Your task to perform on an android device: Empty the shopping cart on ebay. Add "razer blade" to the cart on ebay, then select checkout. Image 0: 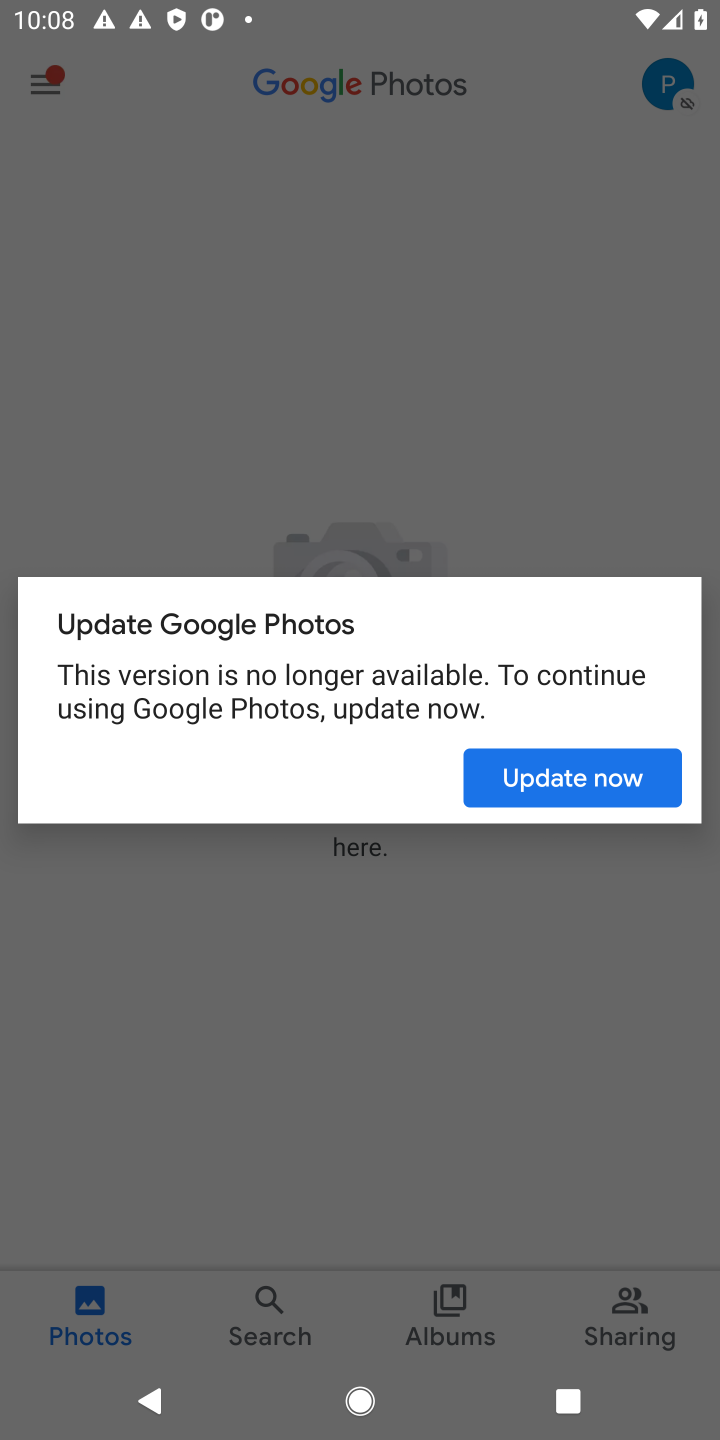
Step 0: press home button
Your task to perform on an android device: Empty the shopping cart on ebay. Add "razer blade" to the cart on ebay, then select checkout. Image 1: 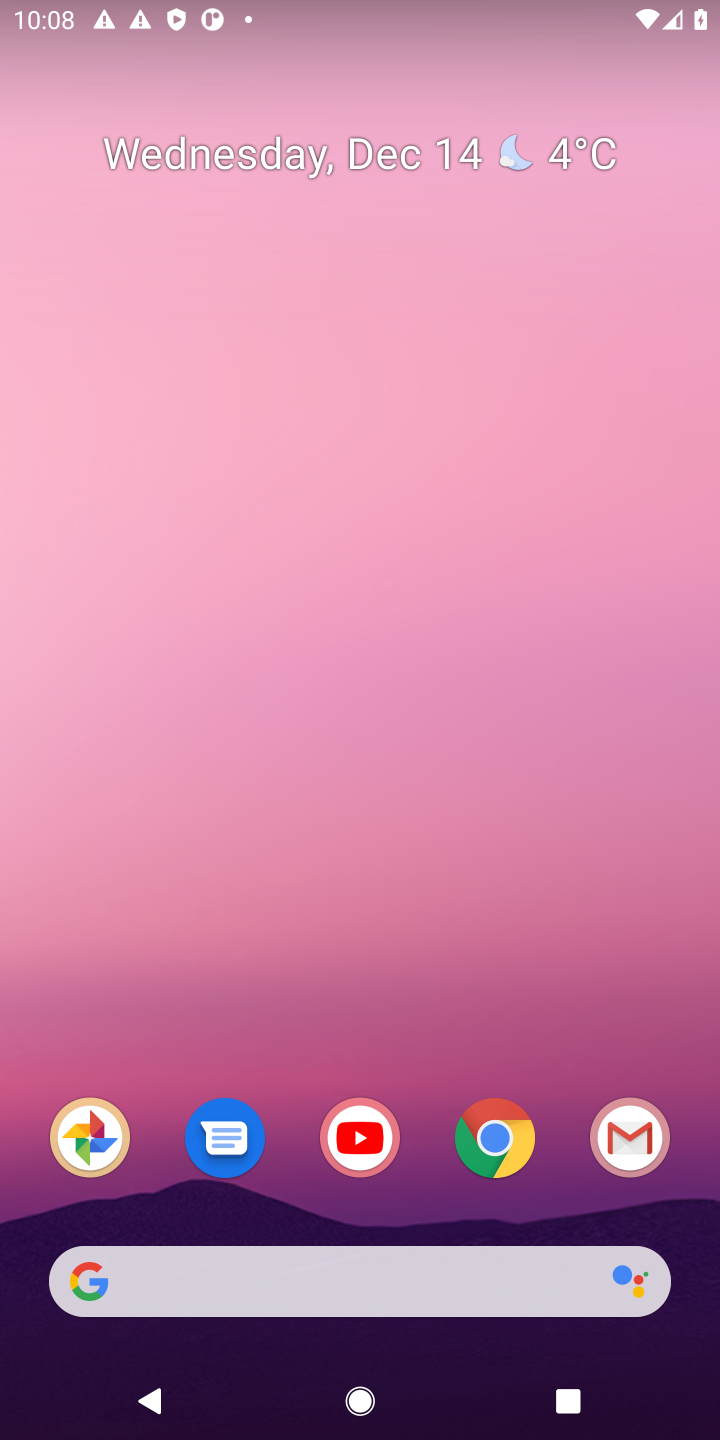
Step 1: click (504, 1135)
Your task to perform on an android device: Empty the shopping cart on ebay. Add "razer blade" to the cart on ebay, then select checkout. Image 2: 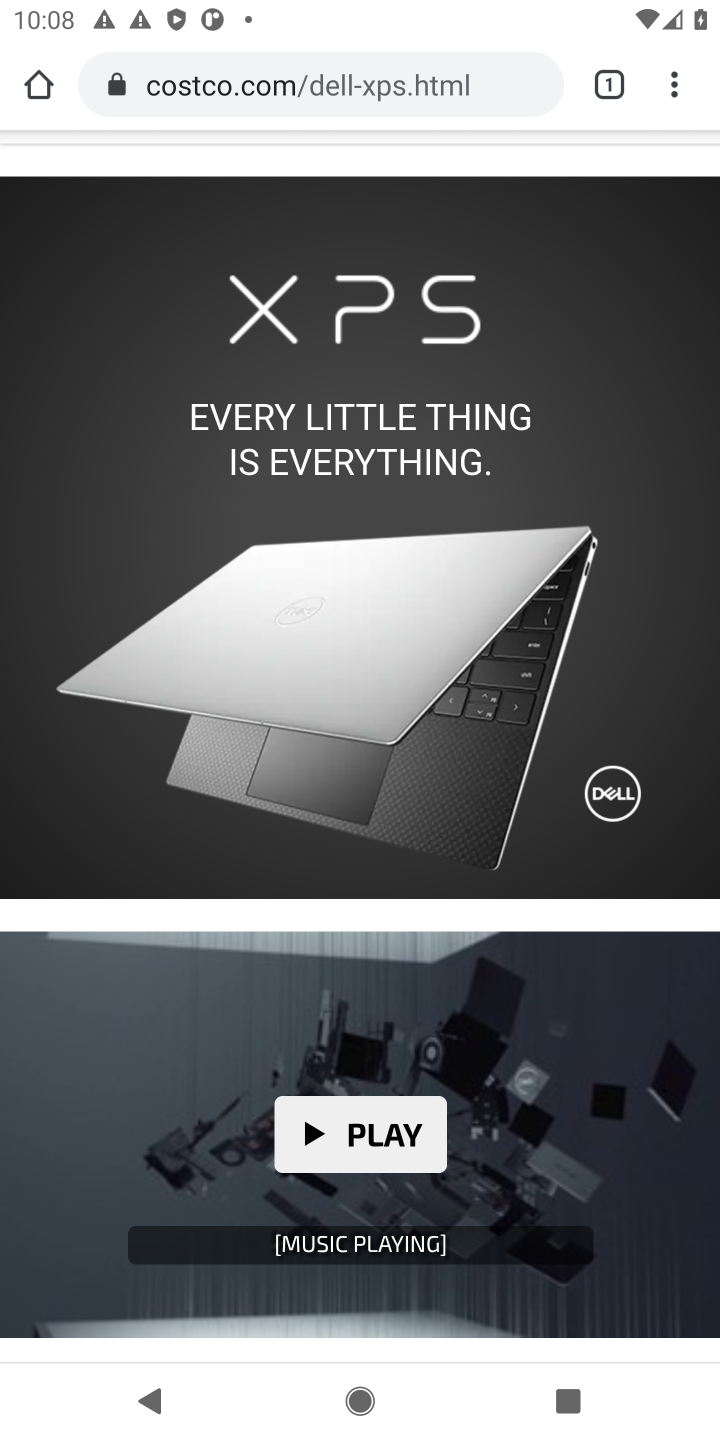
Step 2: click (299, 96)
Your task to perform on an android device: Empty the shopping cart on ebay. Add "razer blade" to the cart on ebay, then select checkout. Image 3: 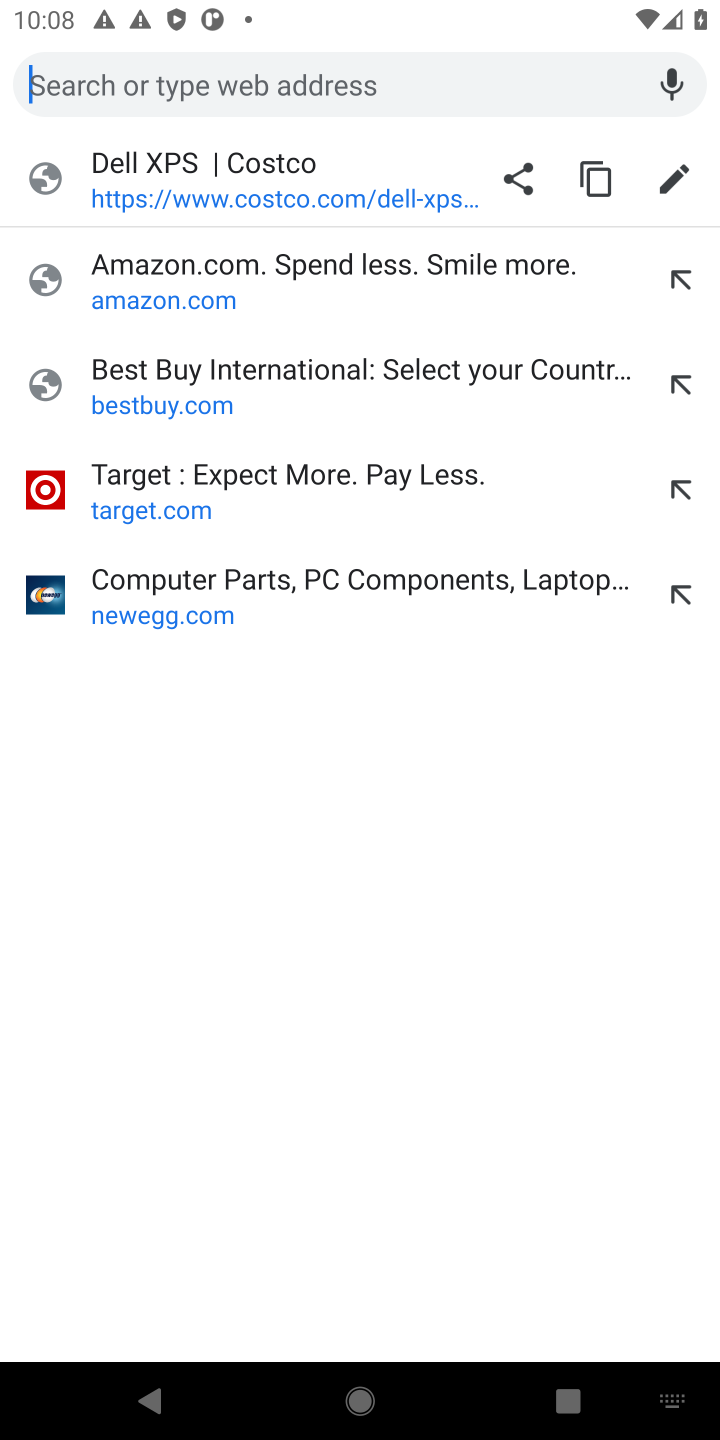
Step 3: type "ebay.com"
Your task to perform on an android device: Empty the shopping cart on ebay. Add "razer blade" to the cart on ebay, then select checkout. Image 4: 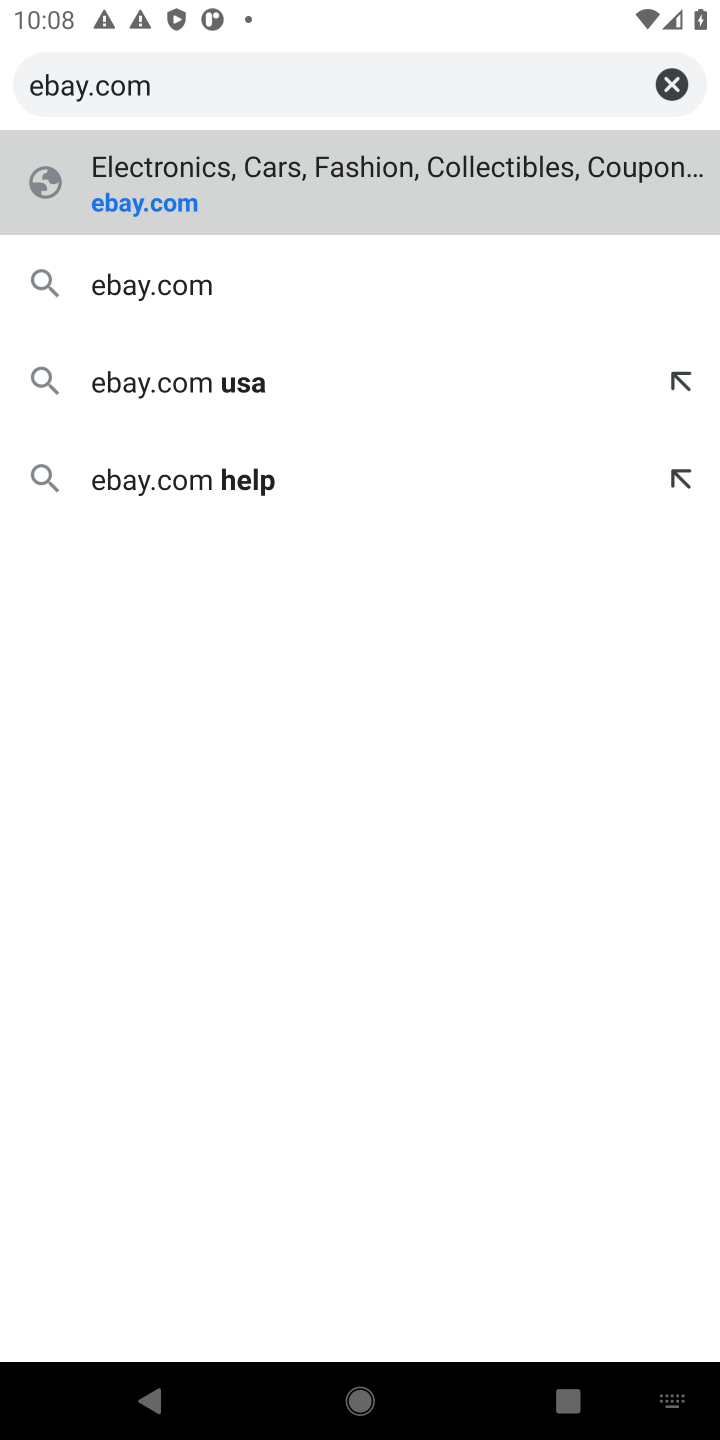
Step 4: click (127, 187)
Your task to perform on an android device: Empty the shopping cart on ebay. Add "razer blade" to the cart on ebay, then select checkout. Image 5: 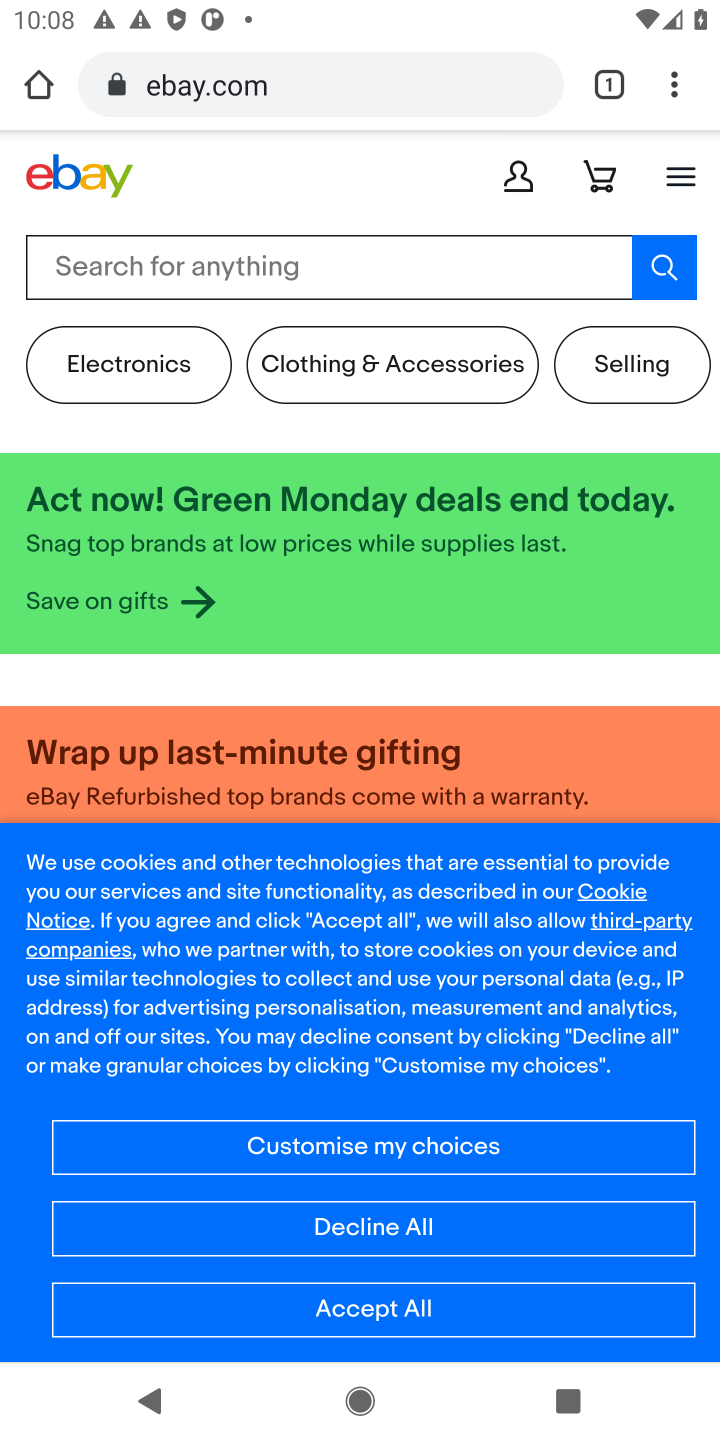
Step 5: click (605, 188)
Your task to perform on an android device: Empty the shopping cart on ebay. Add "razer blade" to the cart on ebay, then select checkout. Image 6: 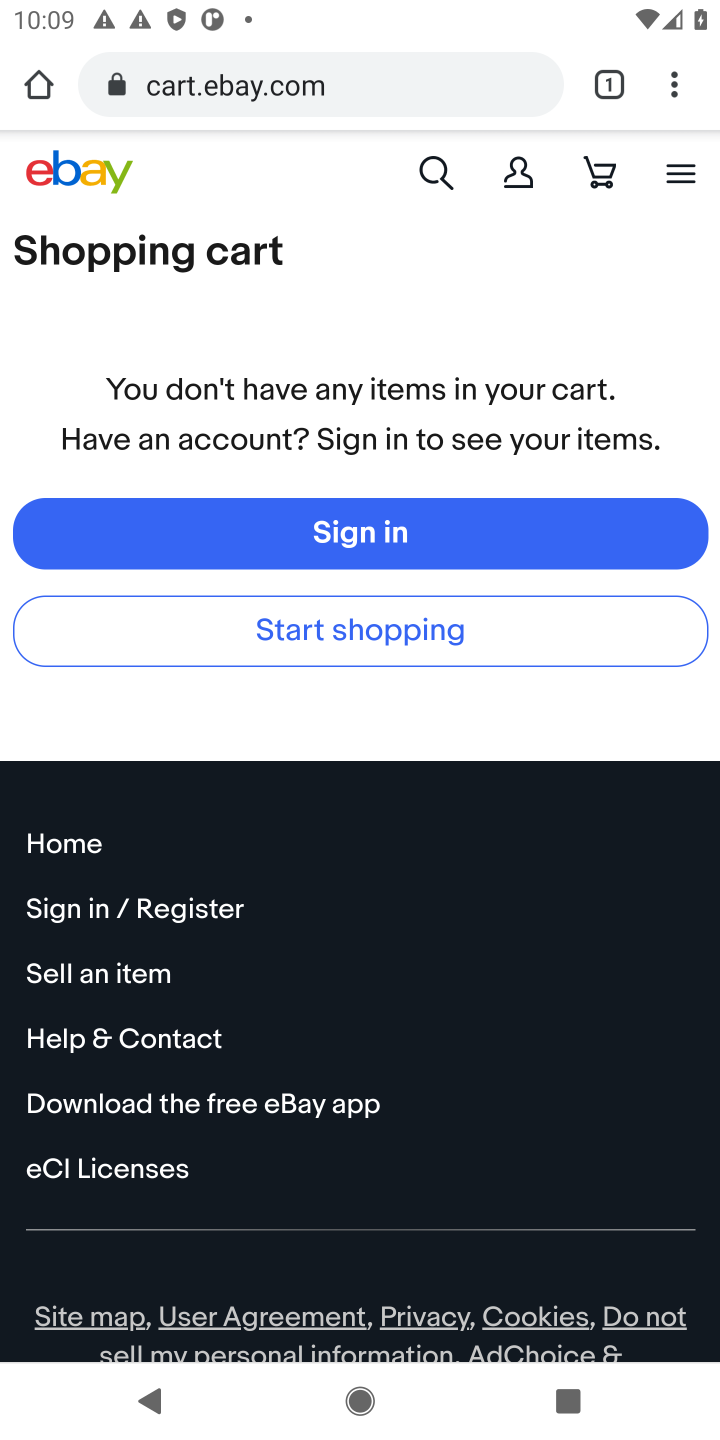
Step 6: click (436, 182)
Your task to perform on an android device: Empty the shopping cart on ebay. Add "razer blade" to the cart on ebay, then select checkout. Image 7: 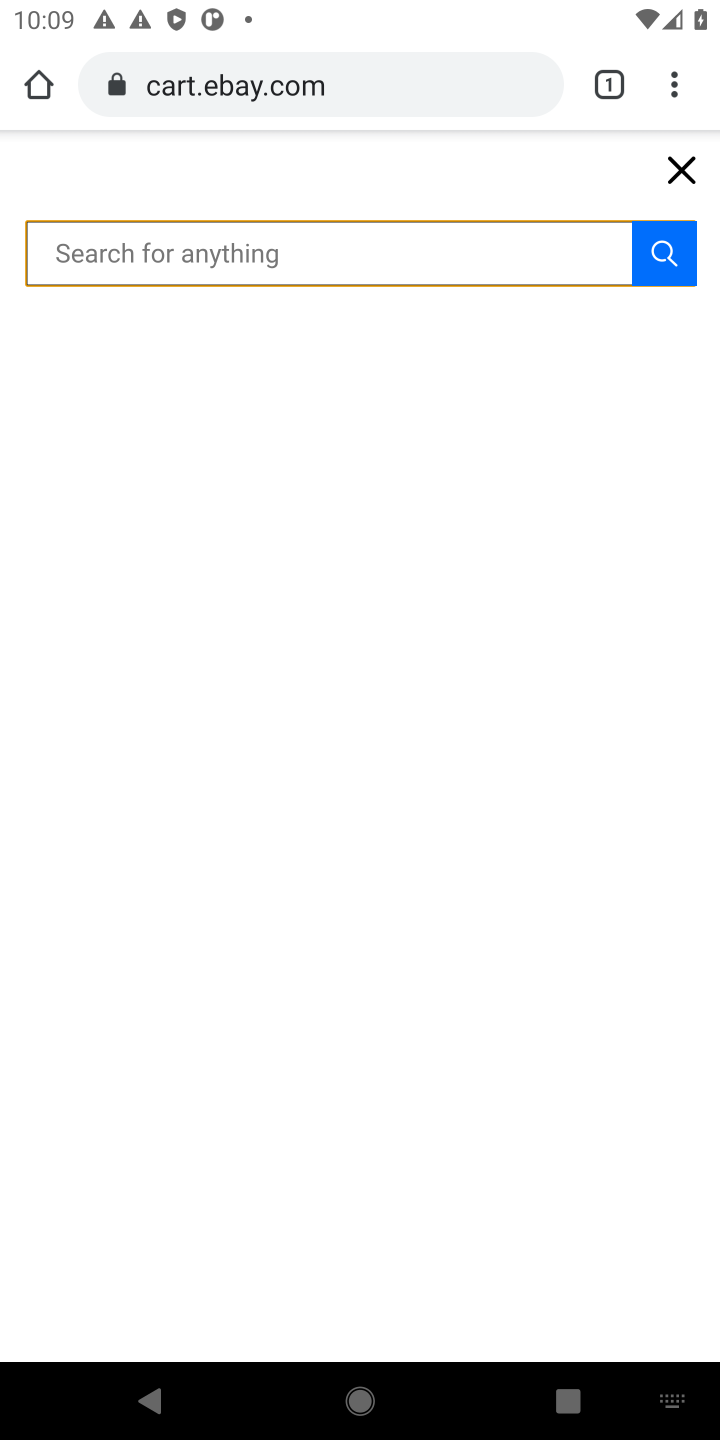
Step 7: type "razer blade"
Your task to perform on an android device: Empty the shopping cart on ebay. Add "razer blade" to the cart on ebay, then select checkout. Image 8: 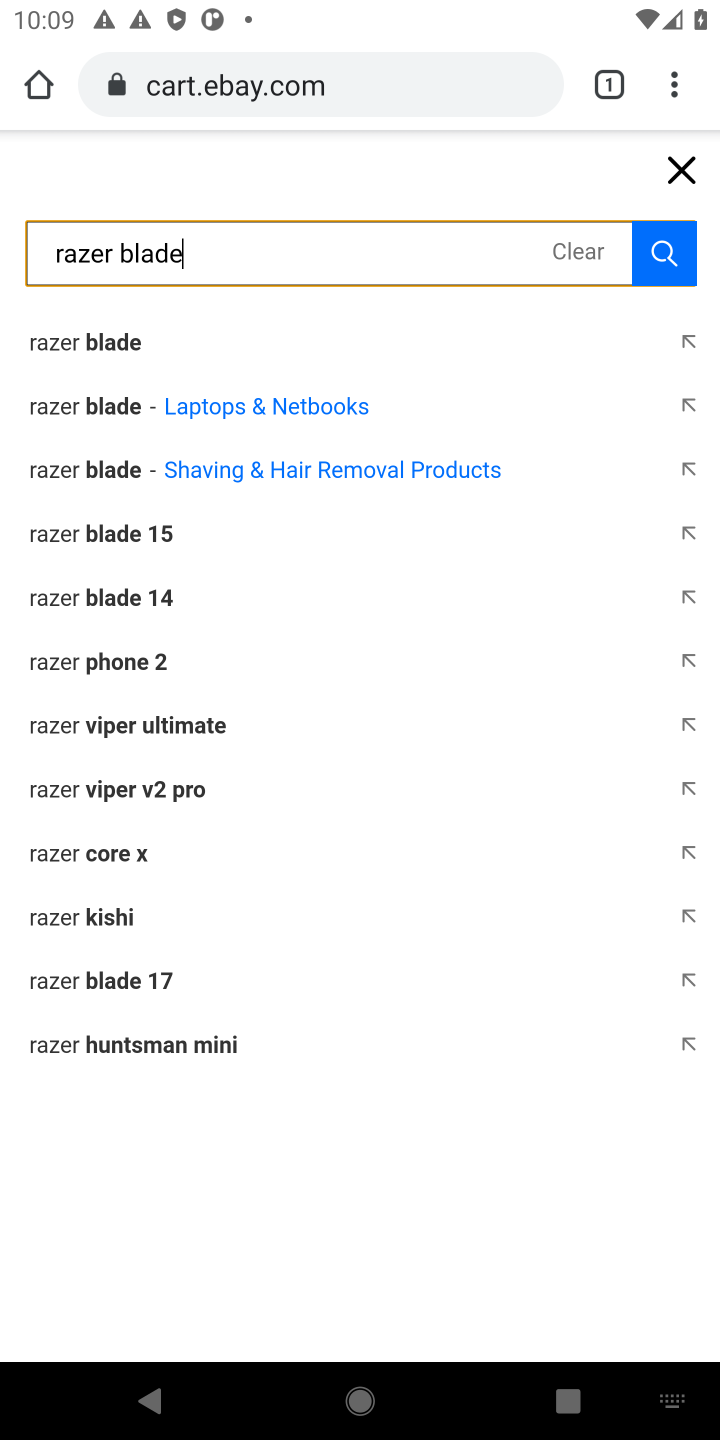
Step 8: click (55, 352)
Your task to perform on an android device: Empty the shopping cart on ebay. Add "razer blade" to the cart on ebay, then select checkout. Image 9: 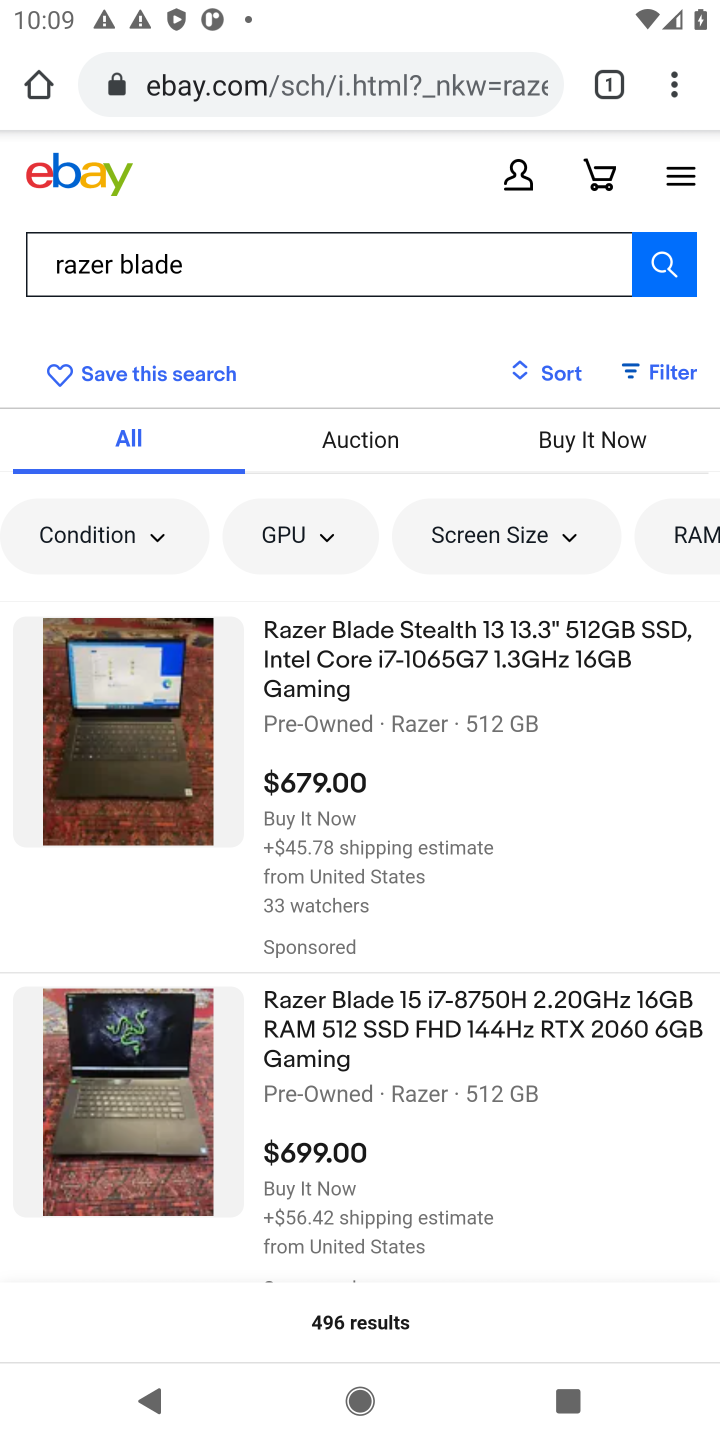
Step 9: click (311, 684)
Your task to perform on an android device: Empty the shopping cart on ebay. Add "razer blade" to the cart on ebay, then select checkout. Image 10: 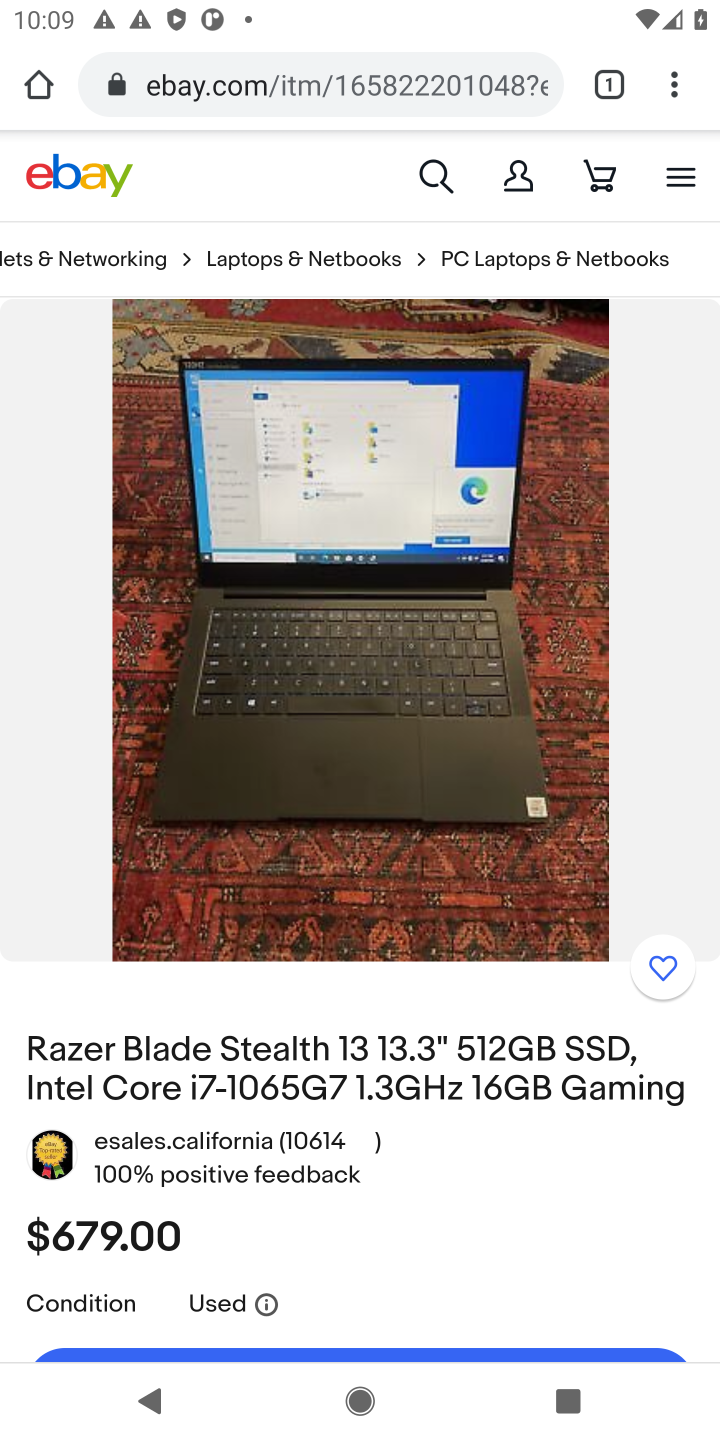
Step 10: drag from (332, 887) to (320, 496)
Your task to perform on an android device: Empty the shopping cart on ebay. Add "razer blade" to the cart on ebay, then select checkout. Image 11: 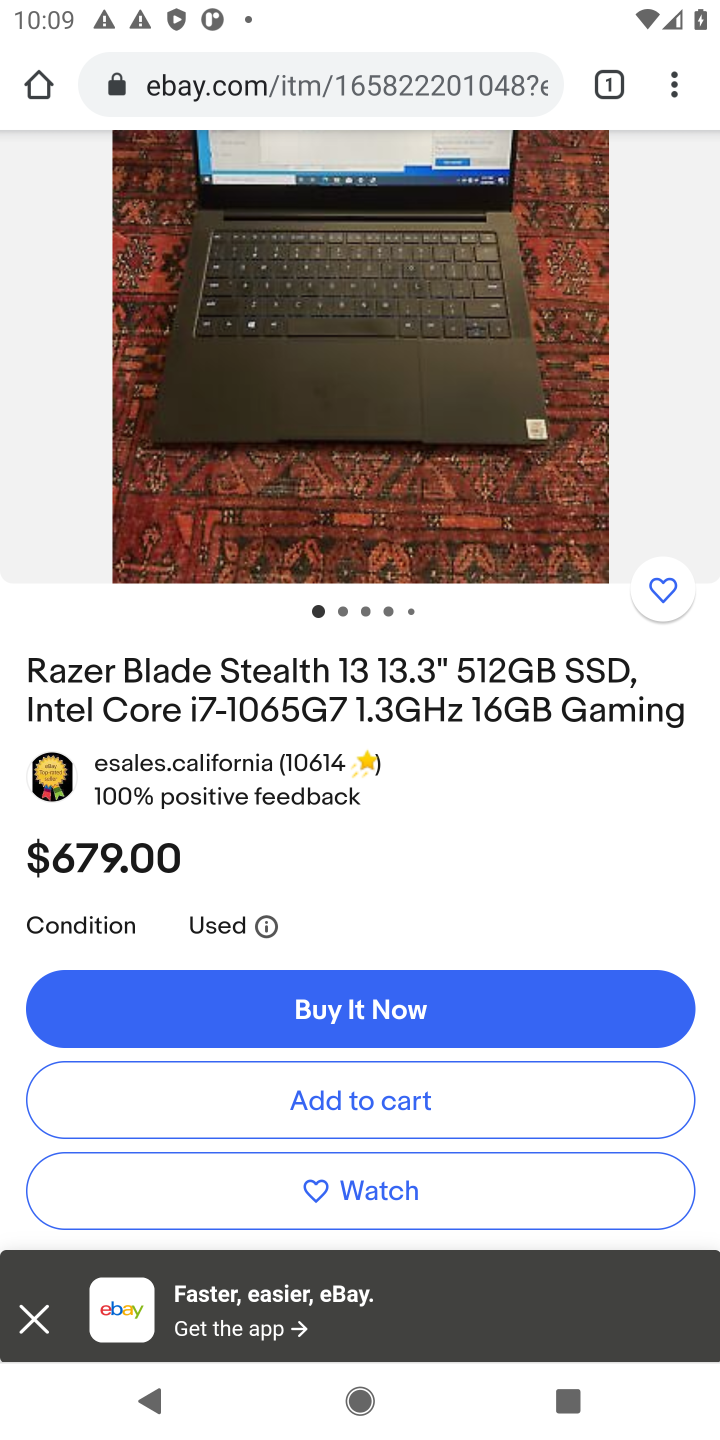
Step 11: click (328, 1103)
Your task to perform on an android device: Empty the shopping cart on ebay. Add "razer blade" to the cart on ebay, then select checkout. Image 12: 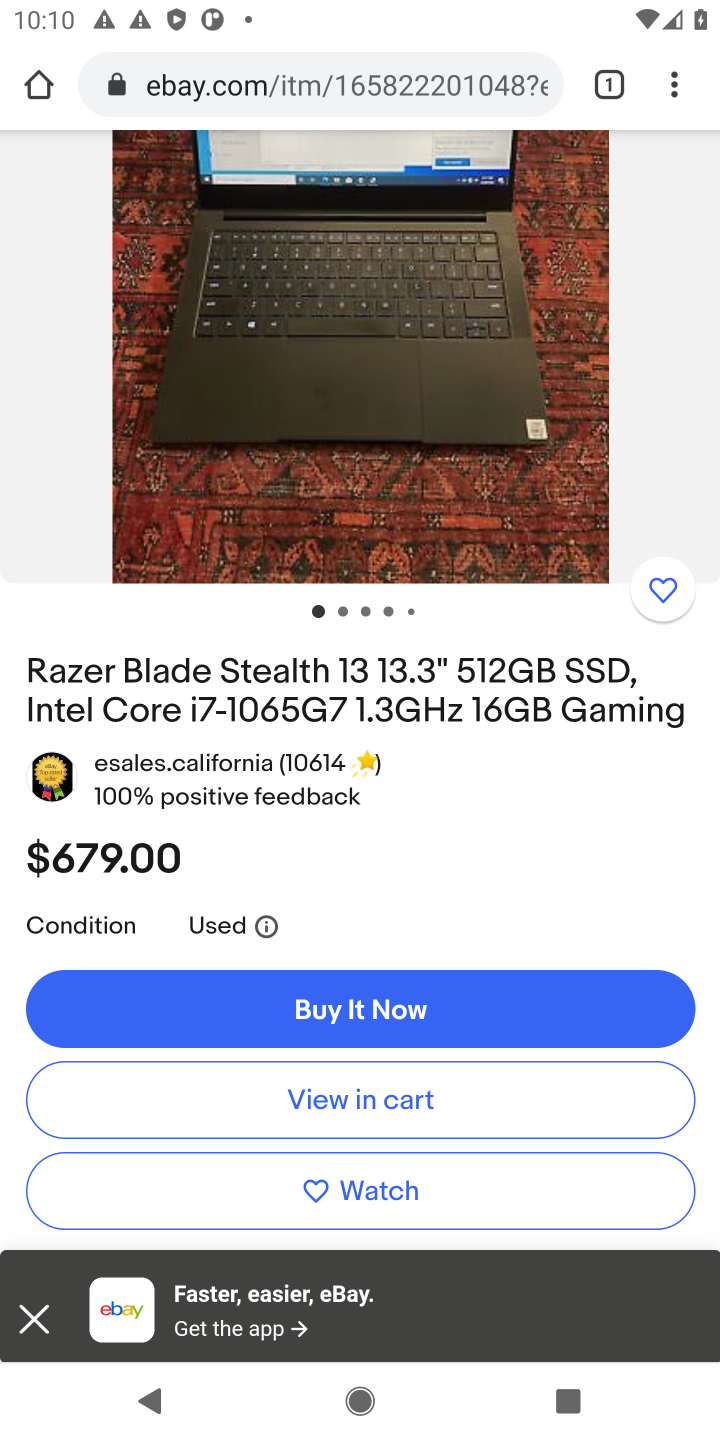
Step 12: click (328, 1103)
Your task to perform on an android device: Empty the shopping cart on ebay. Add "razer blade" to the cart on ebay, then select checkout. Image 13: 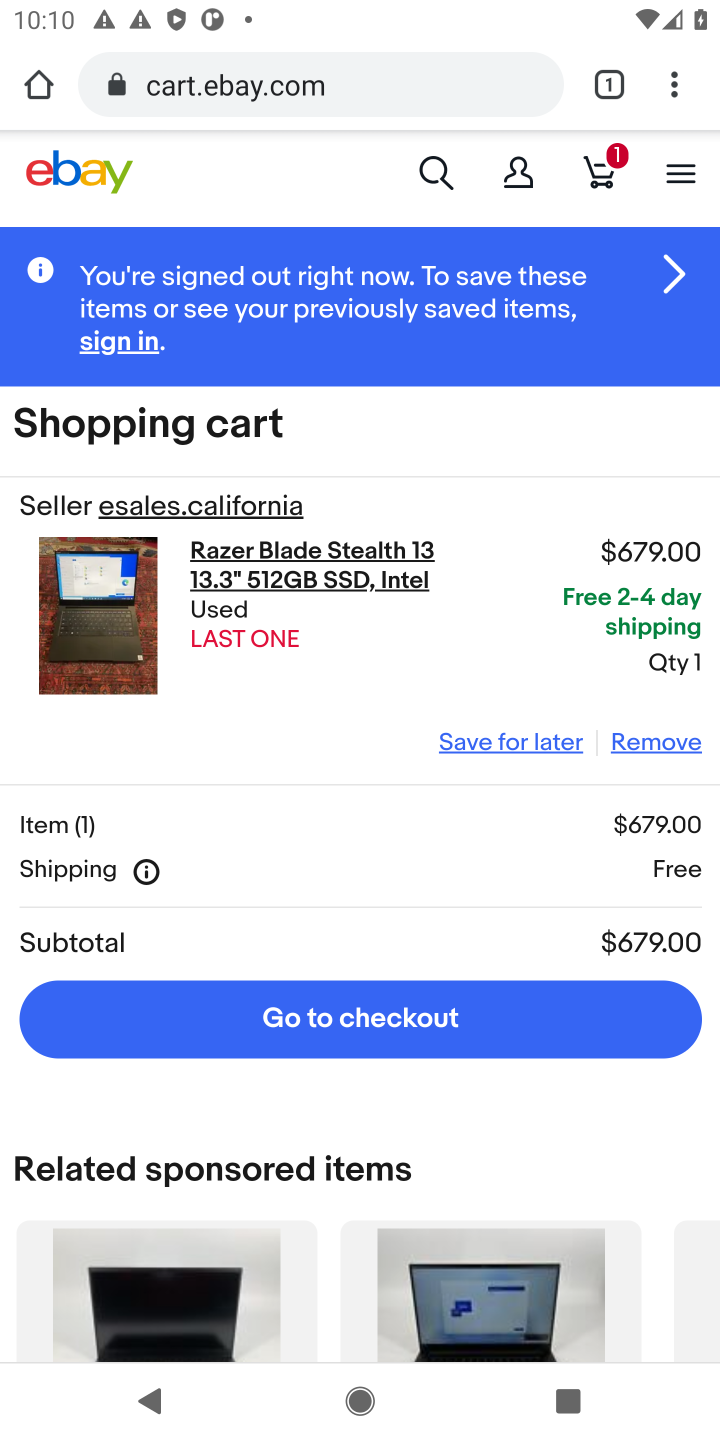
Step 13: click (316, 1024)
Your task to perform on an android device: Empty the shopping cart on ebay. Add "razer blade" to the cart on ebay, then select checkout. Image 14: 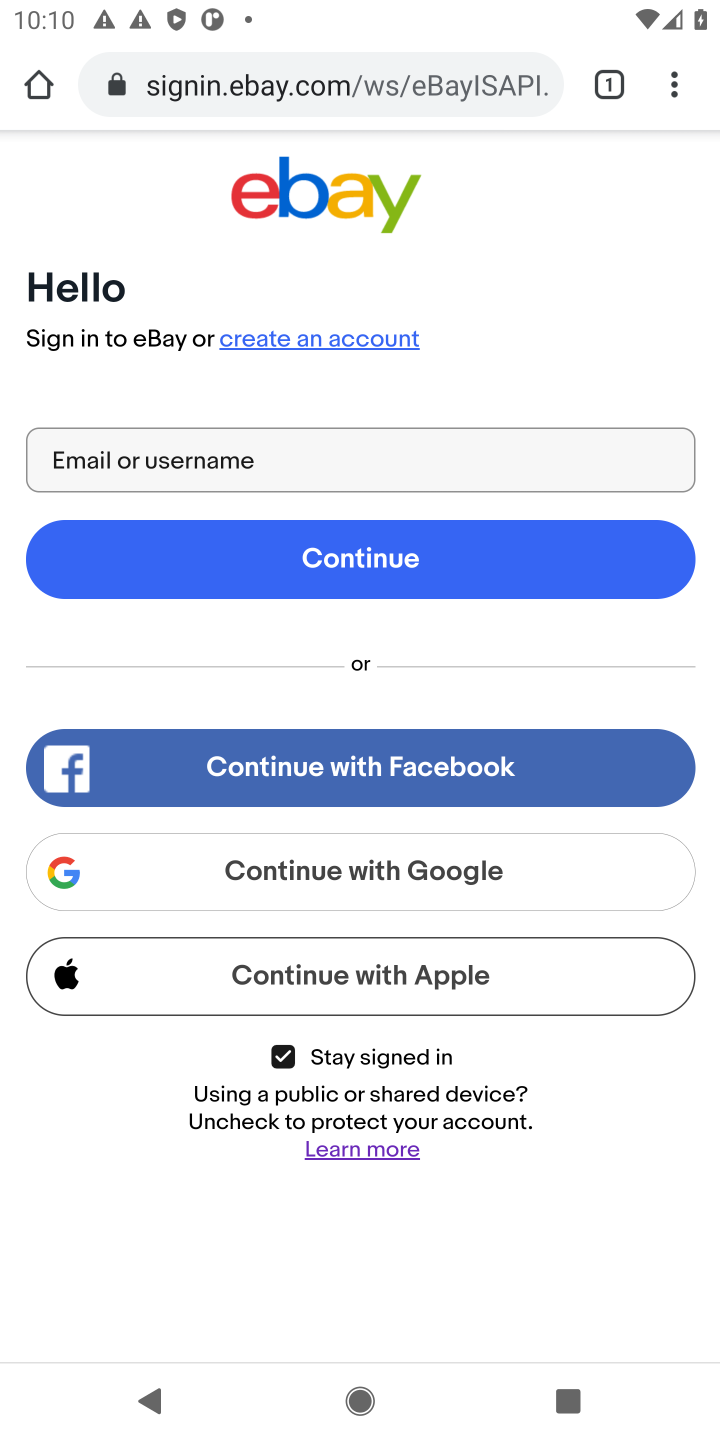
Step 14: task complete